Your task to perform on an android device: Open Google Chrome and click the shortcut for Amazon.com Image 0: 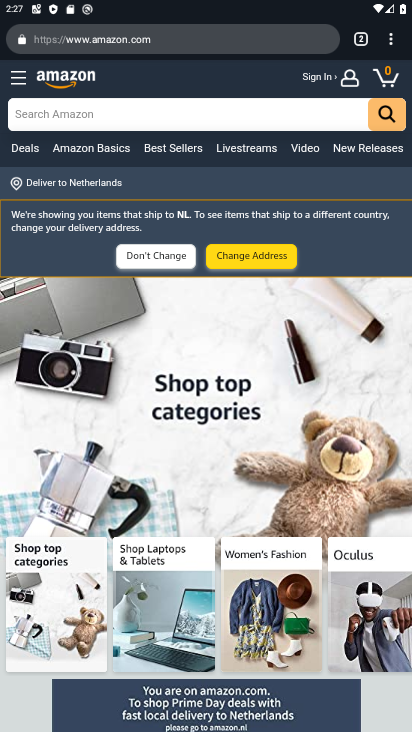
Step 0: press home button
Your task to perform on an android device: Open Google Chrome and click the shortcut for Amazon.com Image 1: 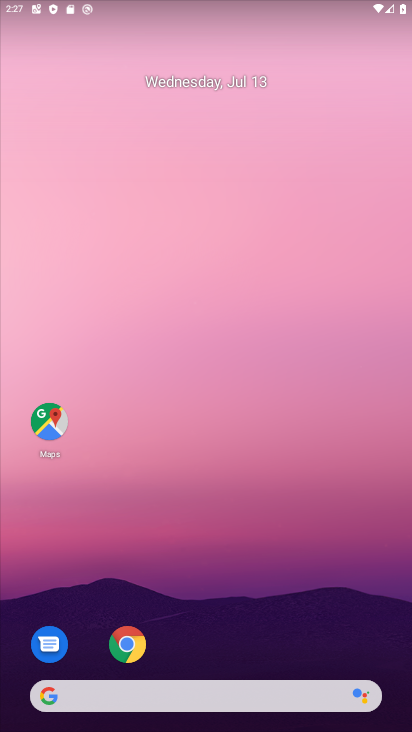
Step 1: click (129, 644)
Your task to perform on an android device: Open Google Chrome and click the shortcut for Amazon.com Image 2: 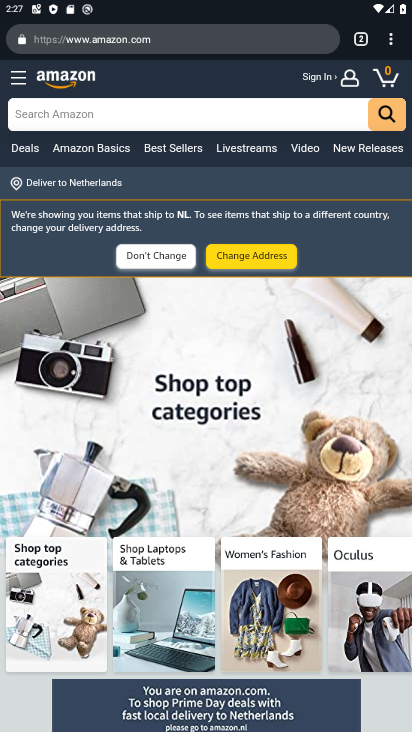
Step 2: click (395, 42)
Your task to perform on an android device: Open Google Chrome and click the shortcut for Amazon.com Image 3: 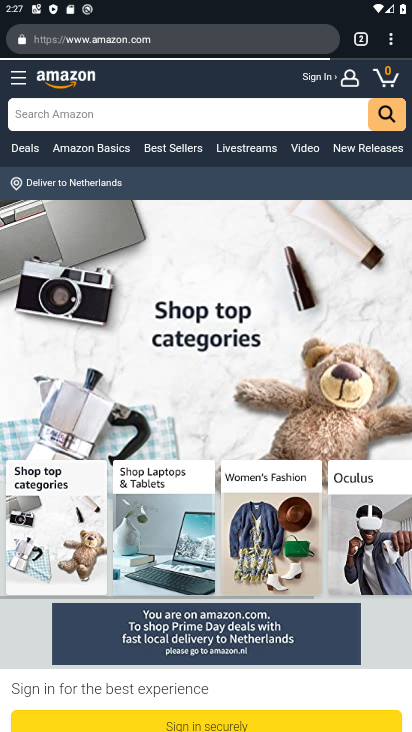
Step 3: drag from (391, 45) to (295, 72)
Your task to perform on an android device: Open Google Chrome and click the shortcut for Amazon.com Image 4: 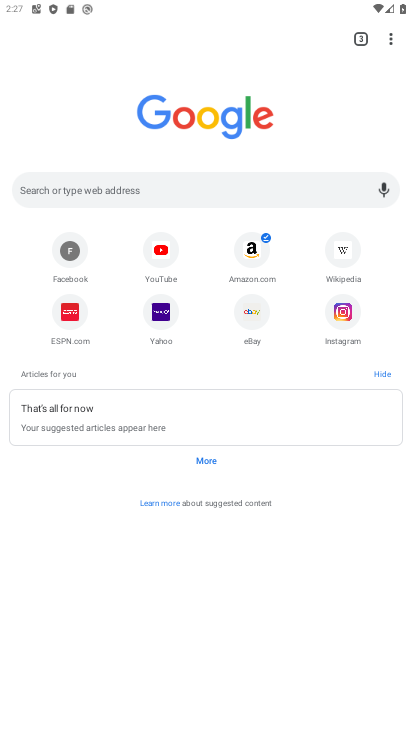
Step 4: click (250, 255)
Your task to perform on an android device: Open Google Chrome and click the shortcut for Amazon.com Image 5: 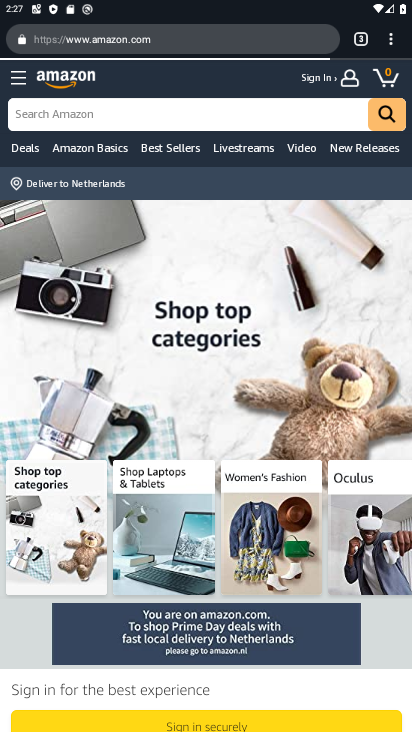
Step 5: task complete